Your task to perform on an android device: Go to sound settings Image 0: 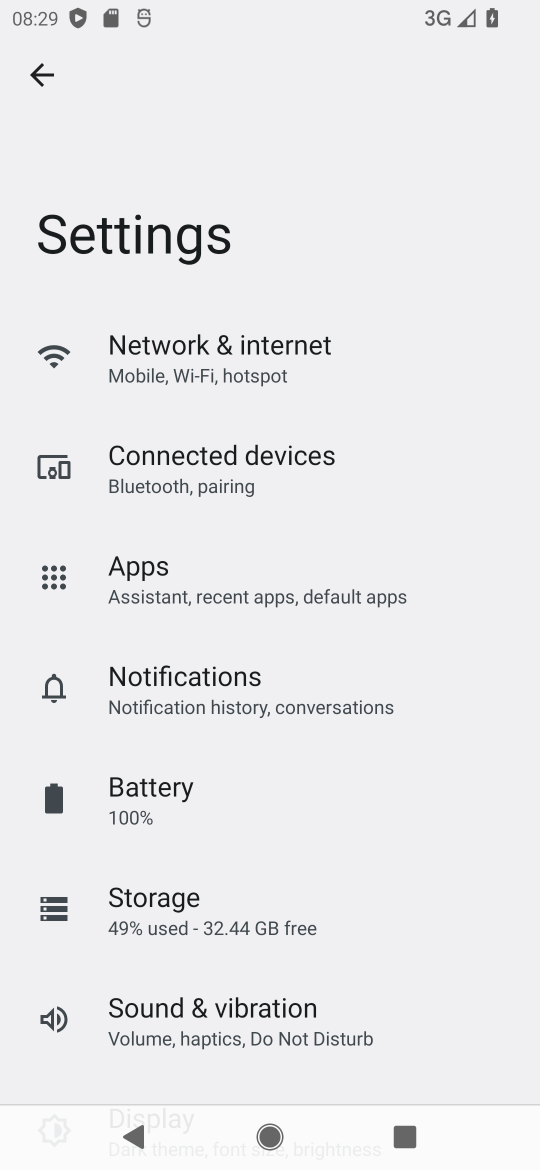
Step 0: drag from (147, 1031) to (230, 321)
Your task to perform on an android device: Go to sound settings Image 1: 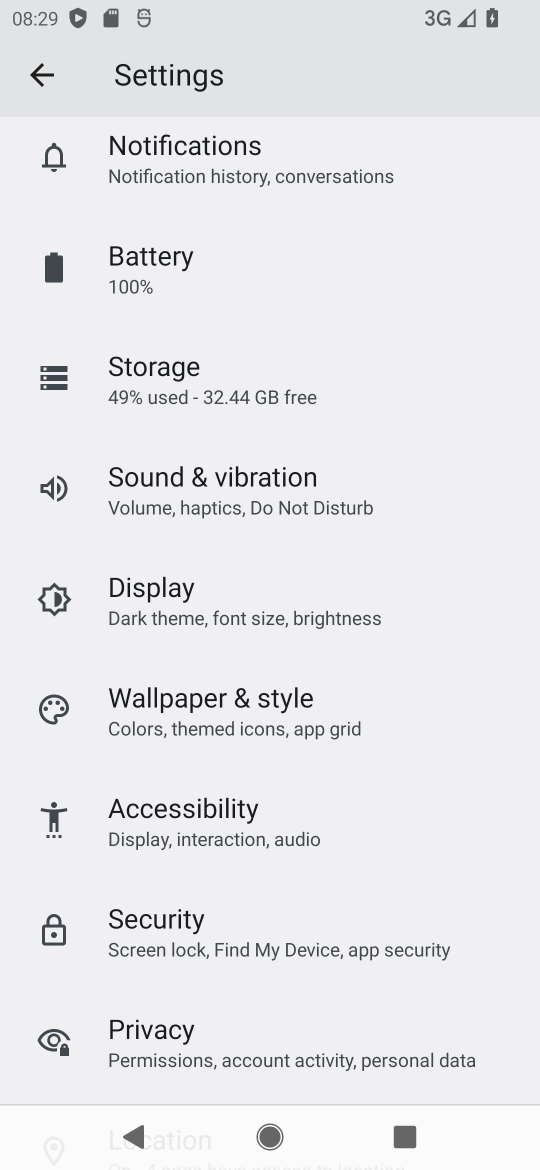
Step 1: click (165, 490)
Your task to perform on an android device: Go to sound settings Image 2: 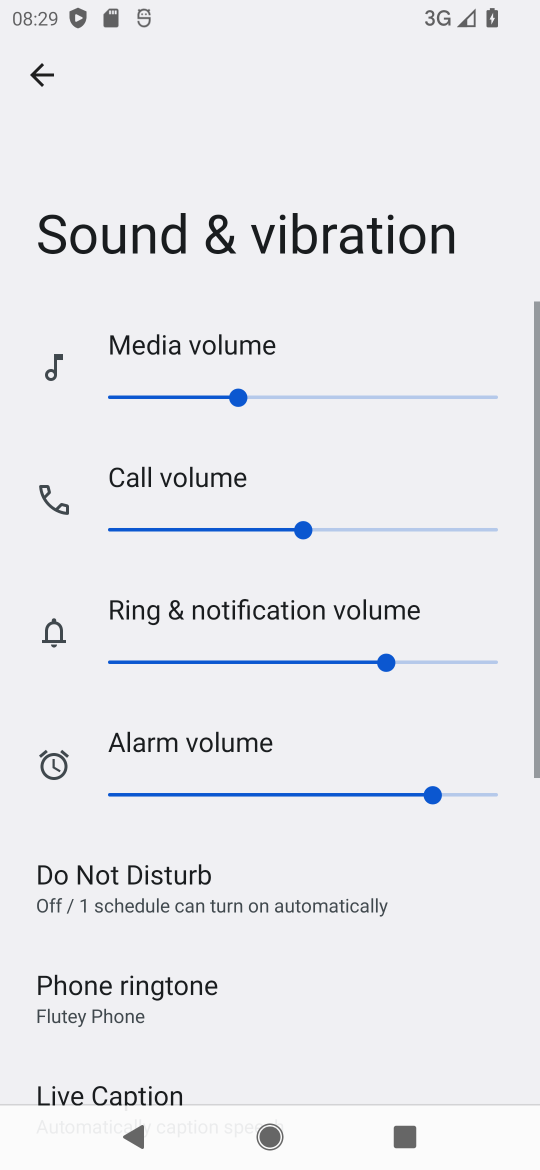
Step 2: task complete